Your task to perform on an android device: Search for the best rated soccer ball on AliExpress Image 0: 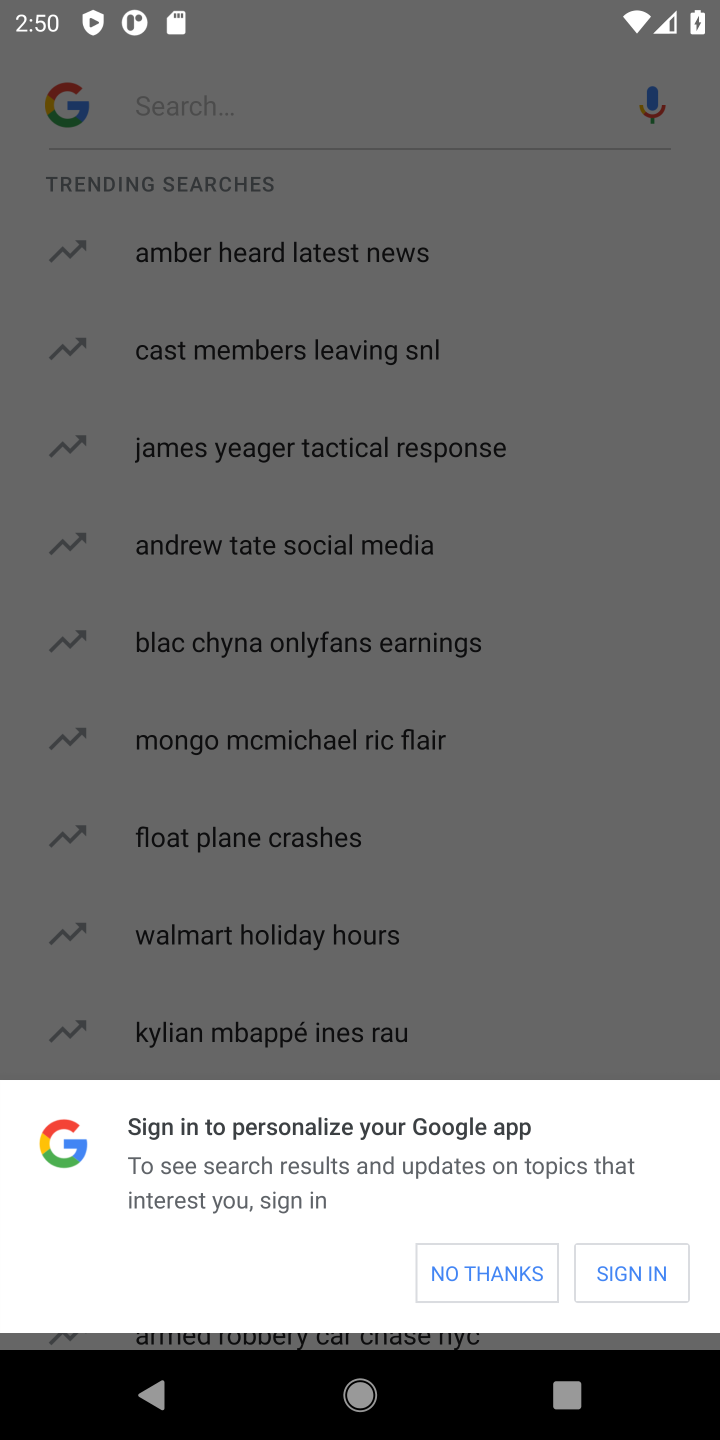
Step 0: click (464, 1282)
Your task to perform on an android device: Search for the best rated soccer ball on AliExpress Image 1: 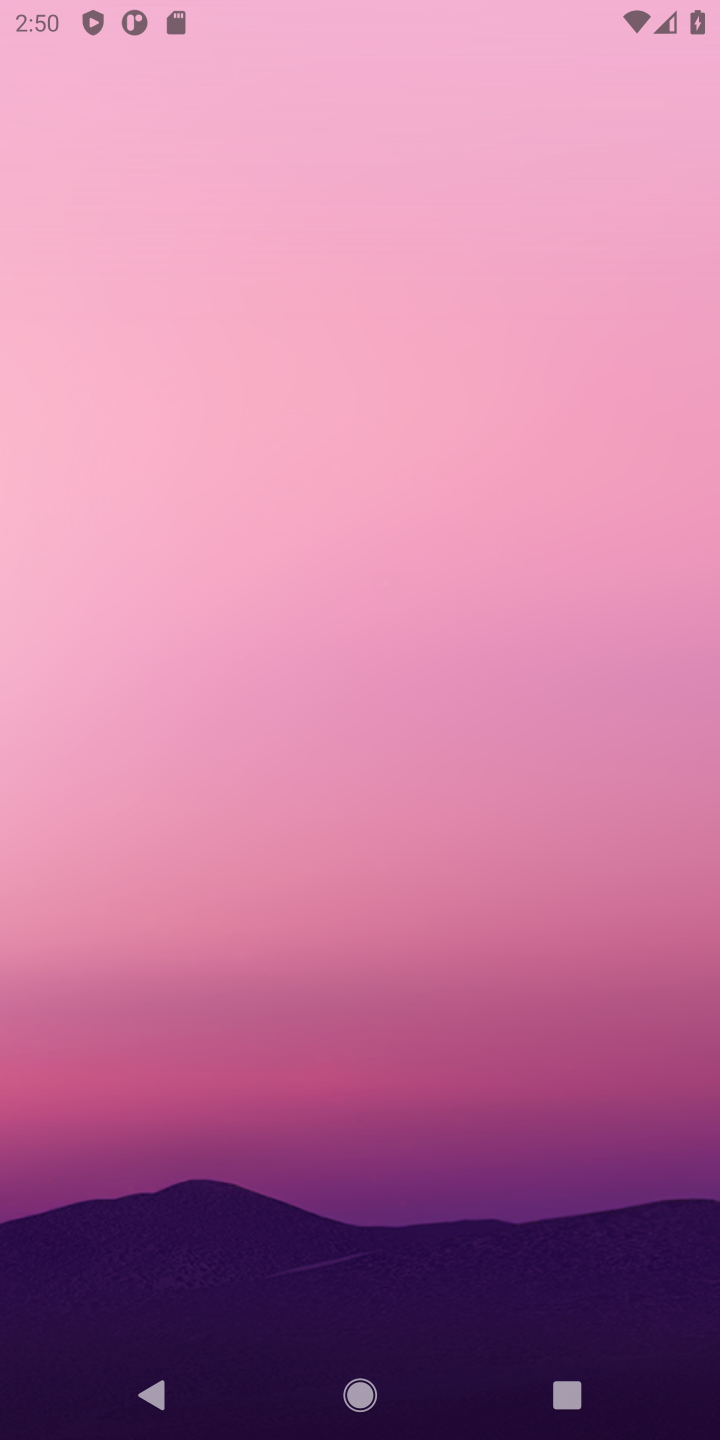
Step 1: press home button
Your task to perform on an android device: Search for the best rated soccer ball on AliExpress Image 2: 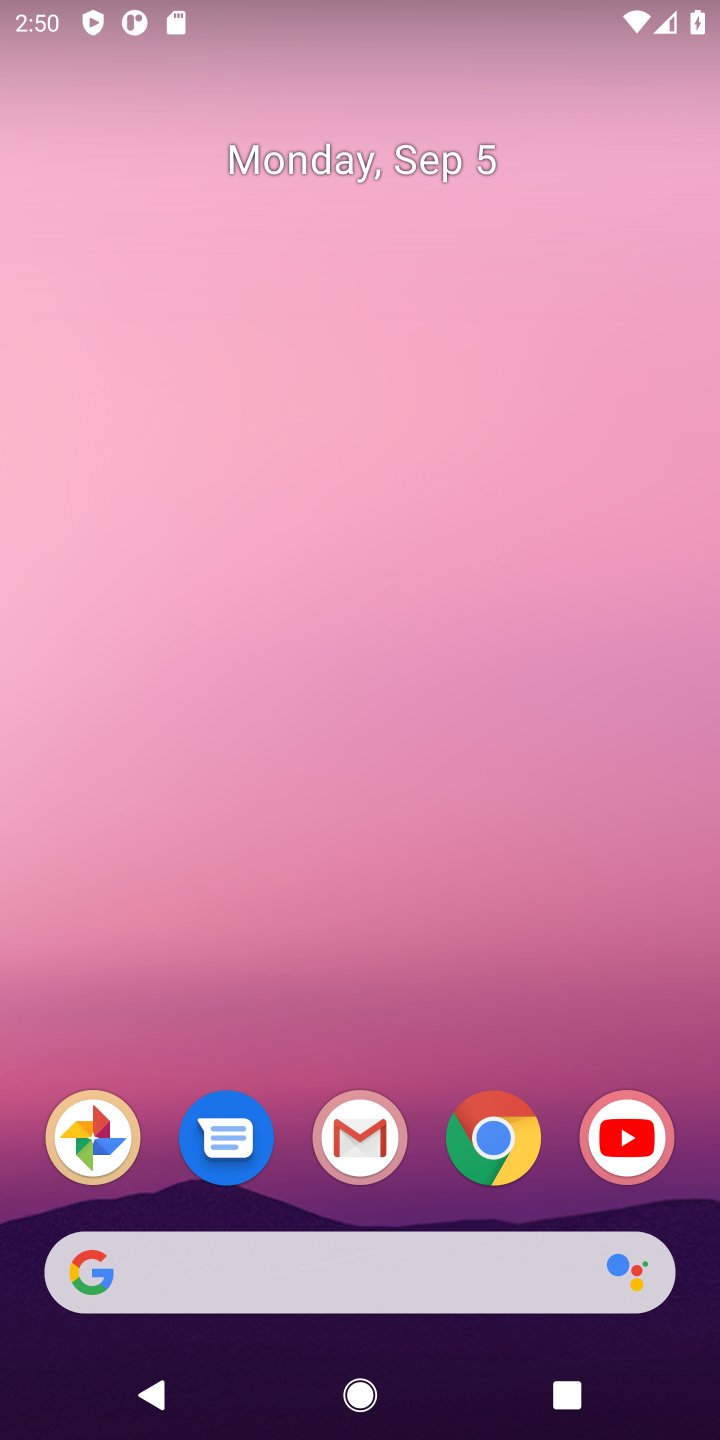
Step 2: click (500, 1147)
Your task to perform on an android device: Search for the best rated soccer ball on AliExpress Image 3: 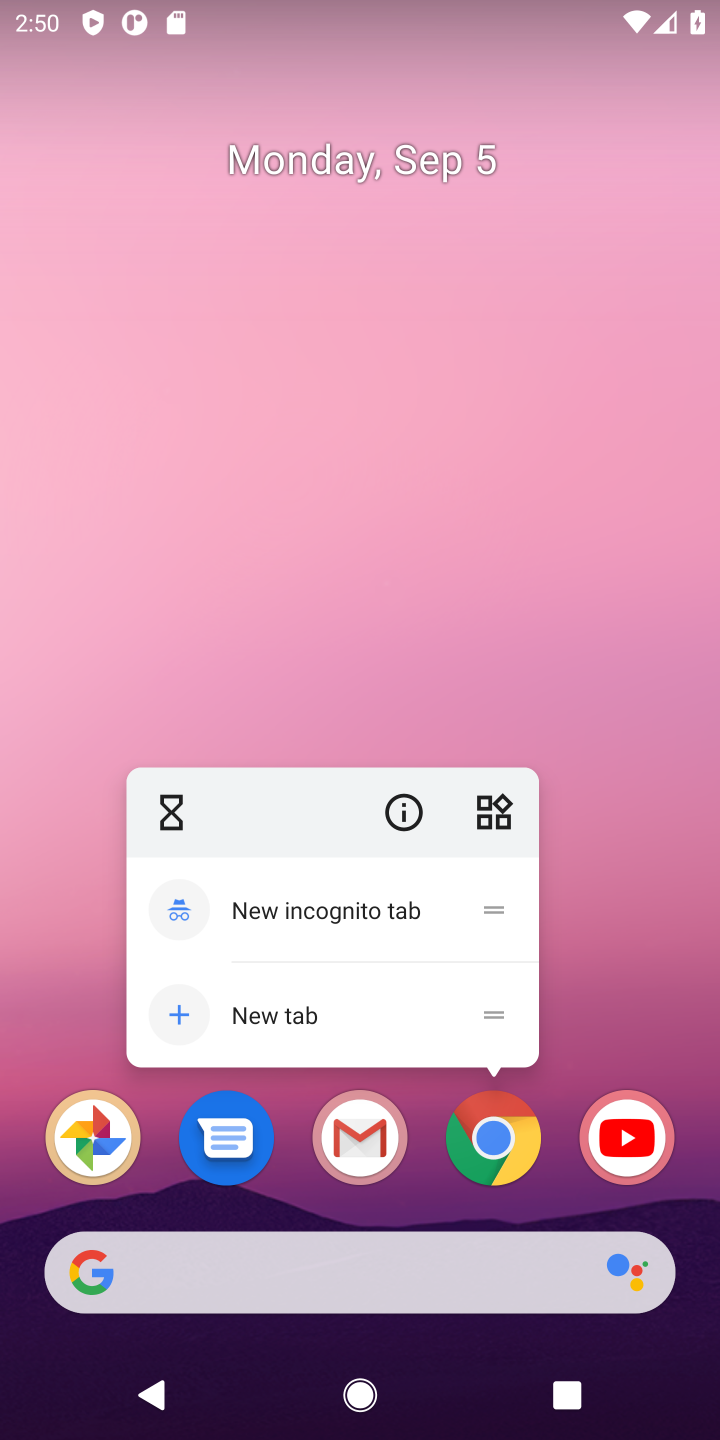
Step 3: click (515, 1141)
Your task to perform on an android device: Search for the best rated soccer ball on AliExpress Image 4: 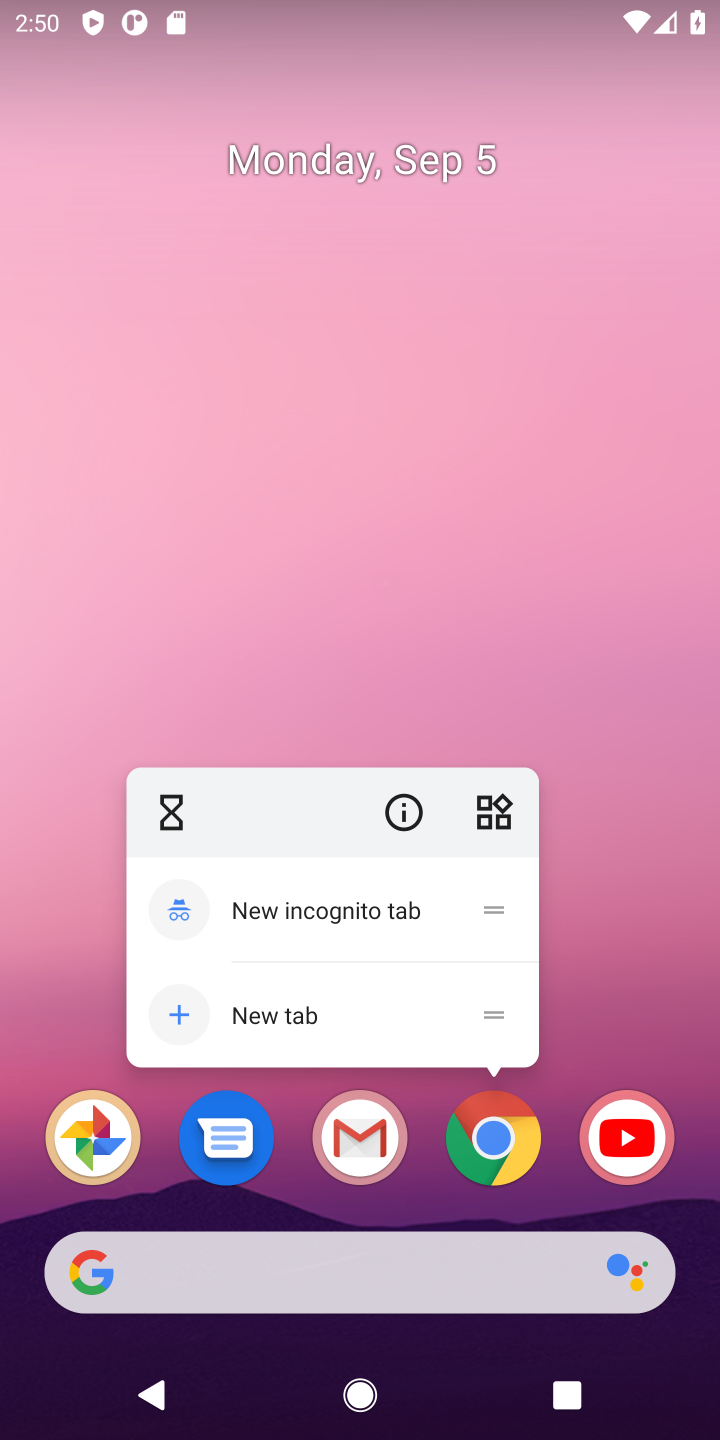
Step 4: click (243, 999)
Your task to perform on an android device: Search for the best rated soccer ball on AliExpress Image 5: 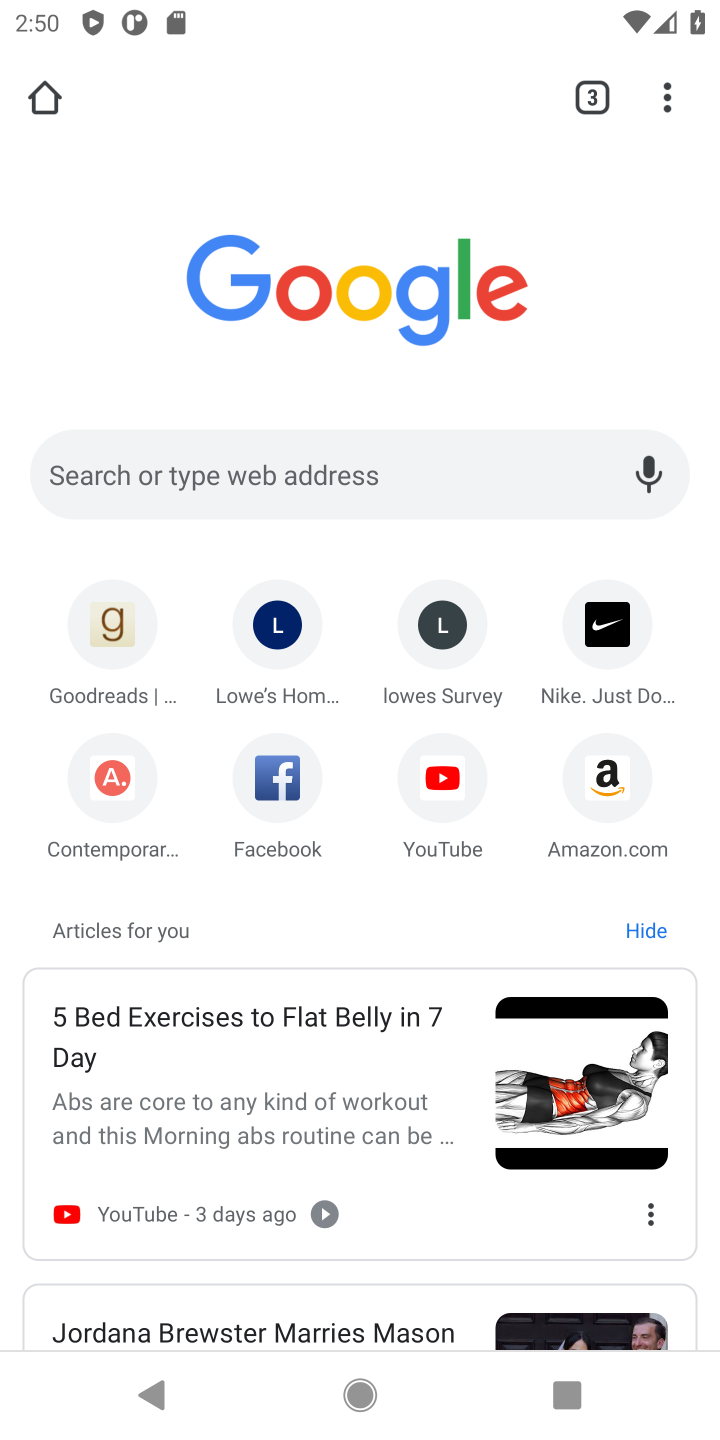
Step 5: click (337, 475)
Your task to perform on an android device: Search for the best rated soccer ball on AliExpress Image 6: 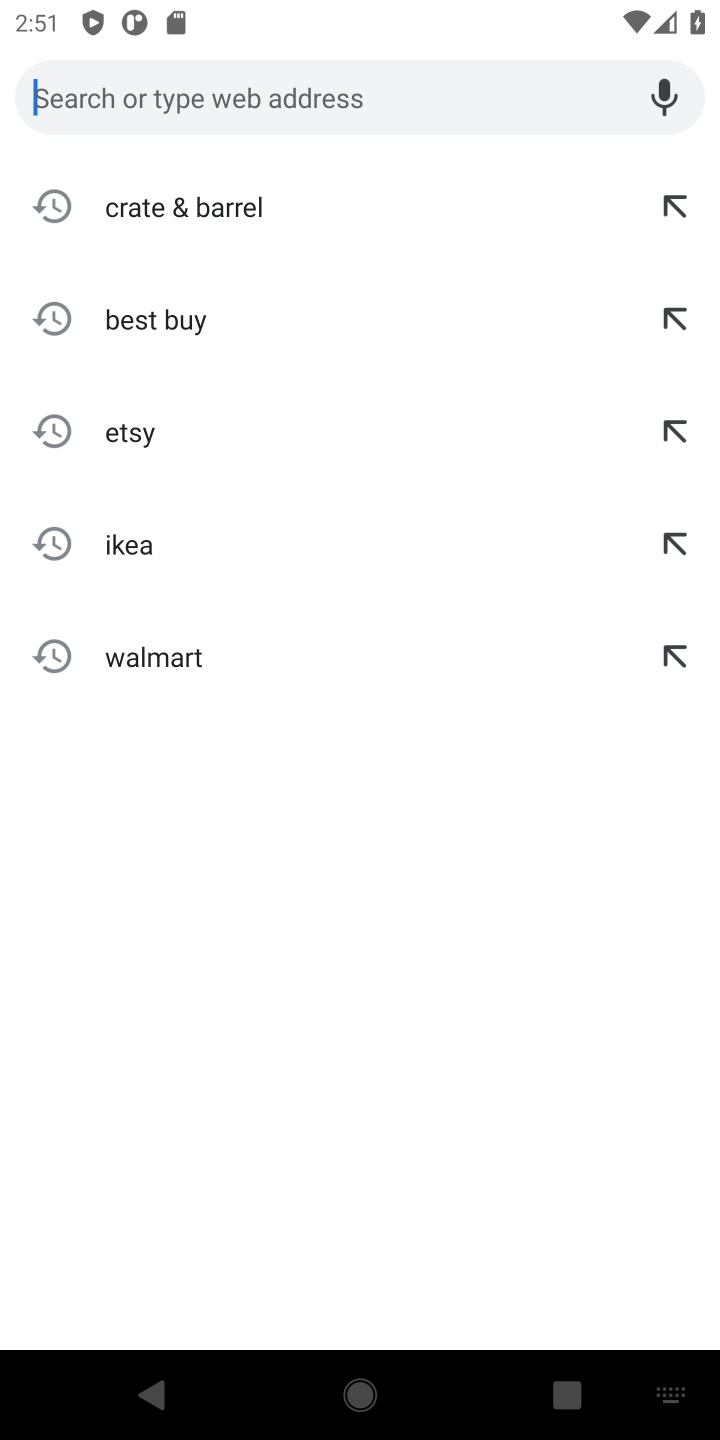
Step 6: type "ali express"
Your task to perform on an android device: Search for the best rated soccer ball on AliExpress Image 7: 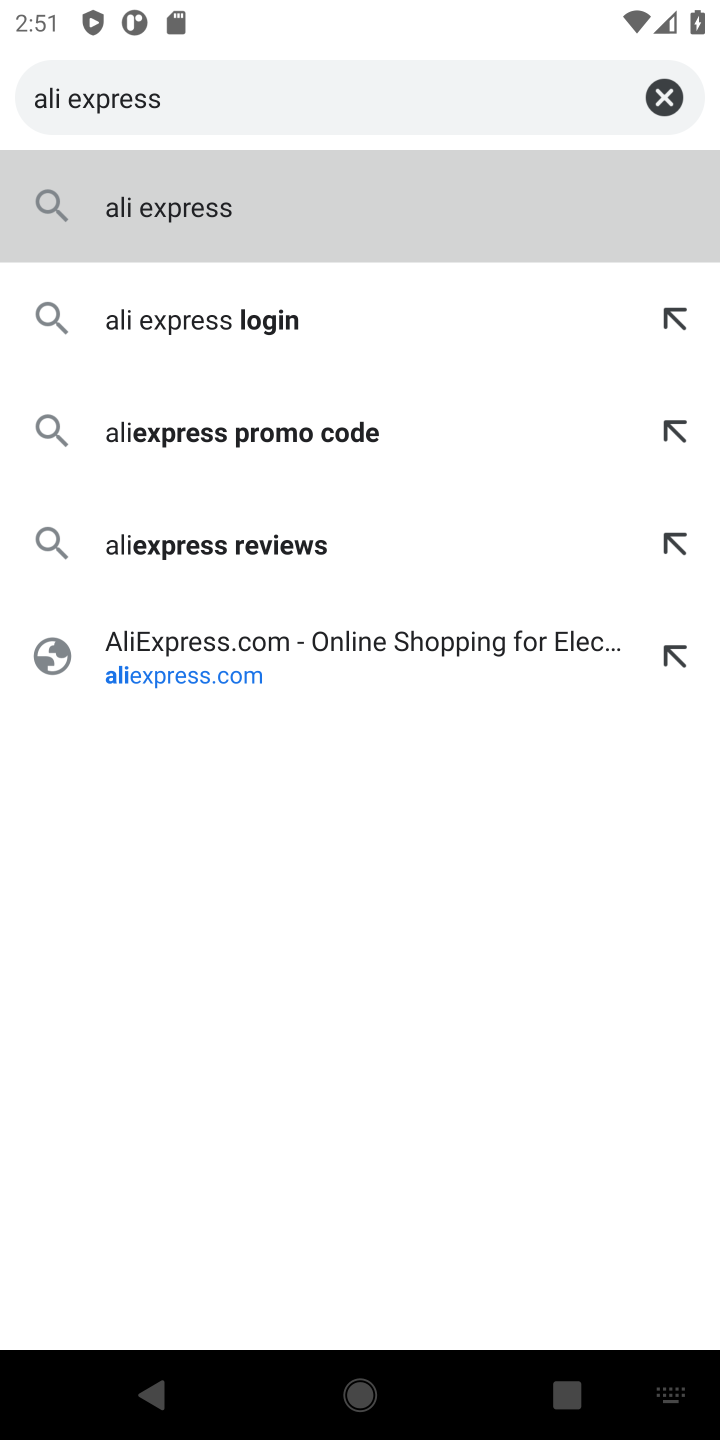
Step 7: click (162, 667)
Your task to perform on an android device: Search for the best rated soccer ball on AliExpress Image 8: 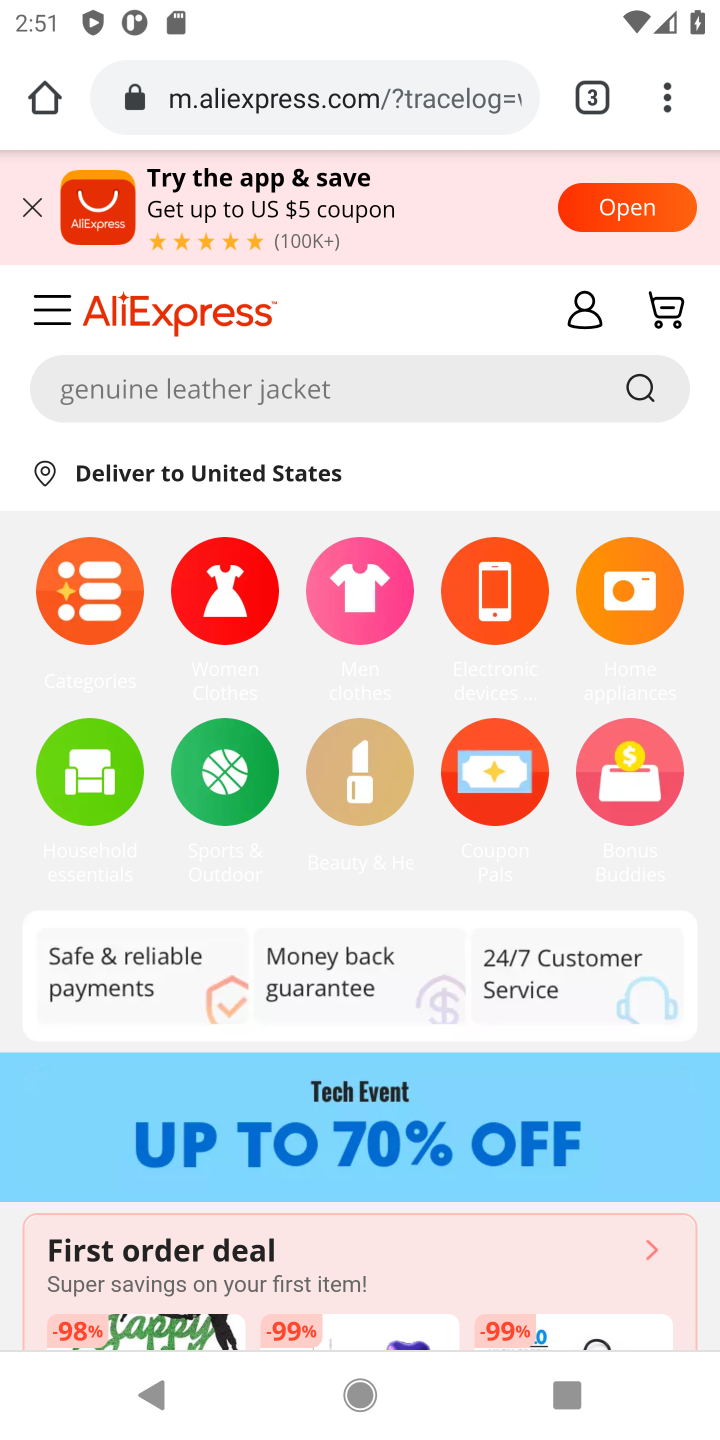
Step 8: click (271, 409)
Your task to perform on an android device: Search for the best rated soccer ball on AliExpress Image 9: 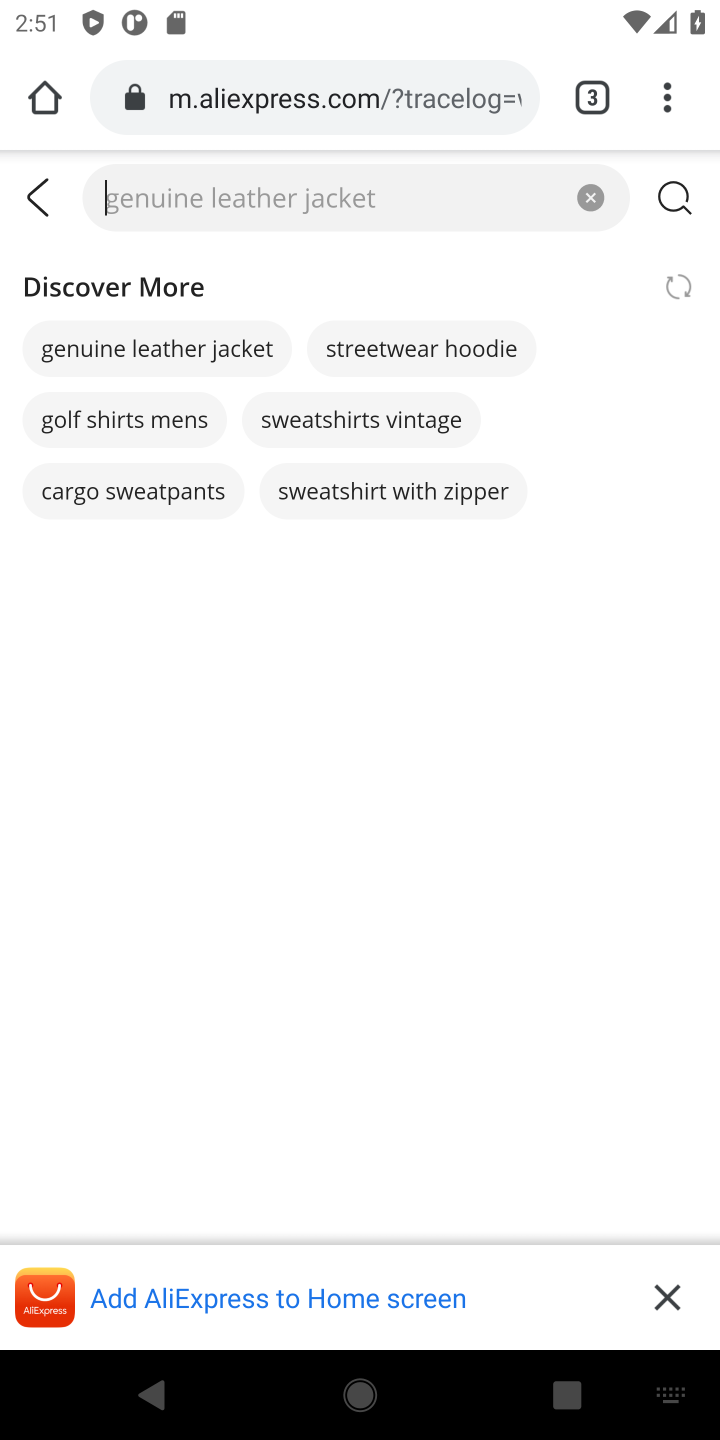
Step 9: type "soccer ball"
Your task to perform on an android device: Search for the best rated soccer ball on AliExpress Image 10: 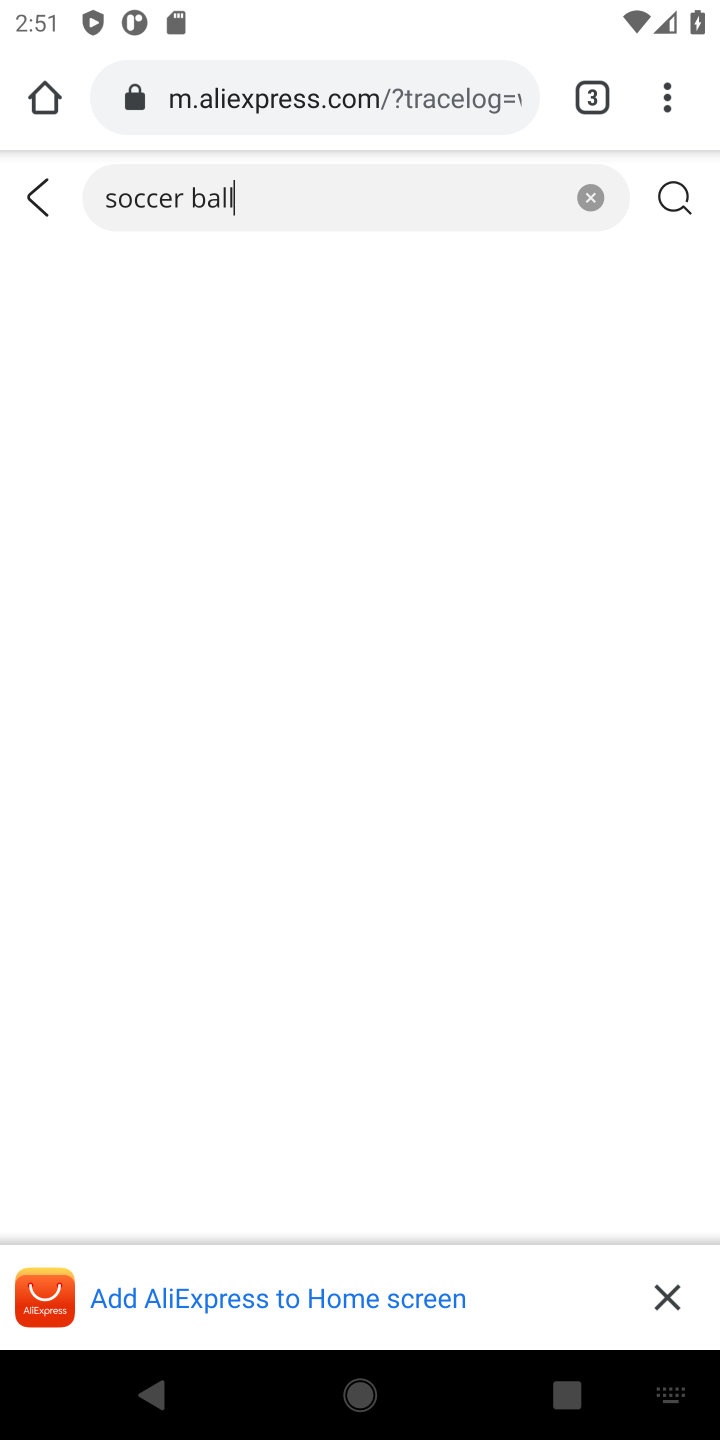
Step 10: type ""
Your task to perform on an android device: Search for the best rated soccer ball on AliExpress Image 11: 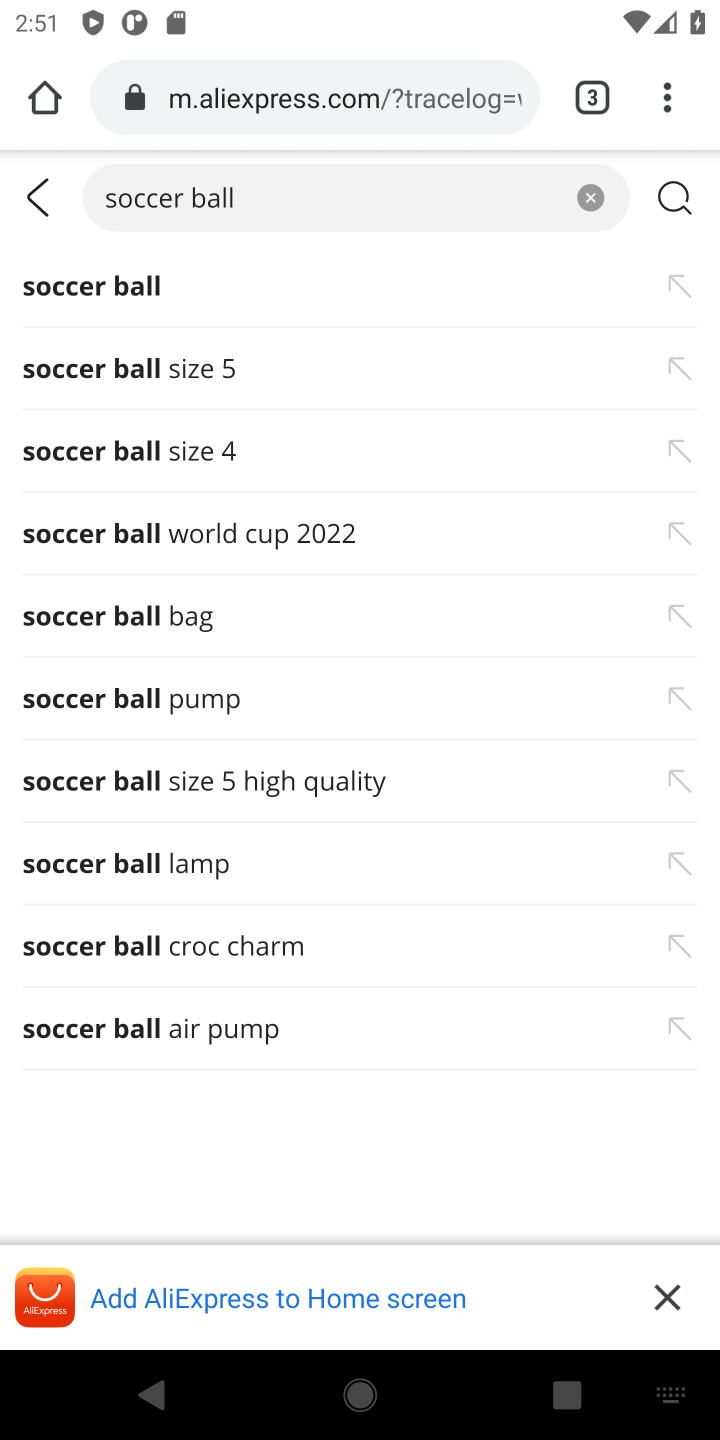
Step 11: click (132, 287)
Your task to perform on an android device: Search for the best rated soccer ball on AliExpress Image 12: 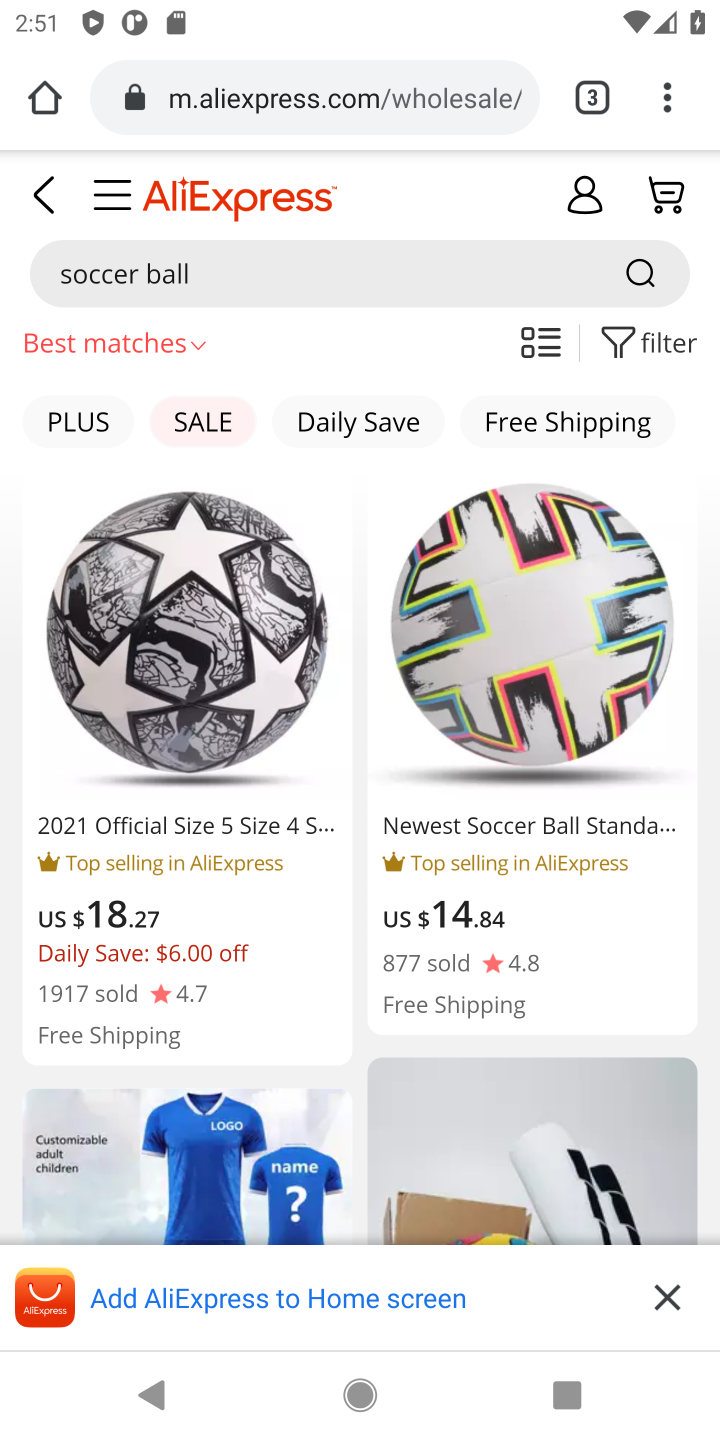
Step 12: click (690, 331)
Your task to perform on an android device: Search for the best rated soccer ball on AliExpress Image 13: 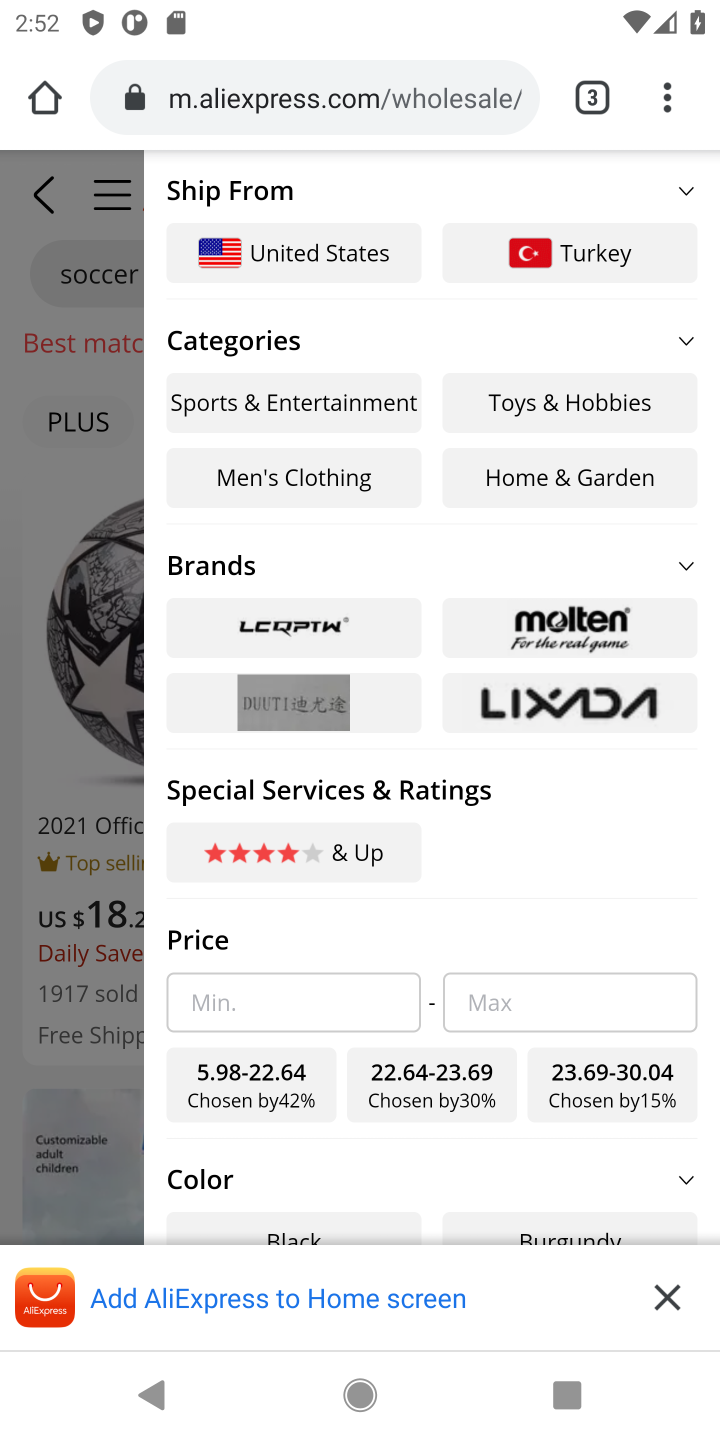
Step 13: click (660, 1299)
Your task to perform on an android device: Search for the best rated soccer ball on AliExpress Image 14: 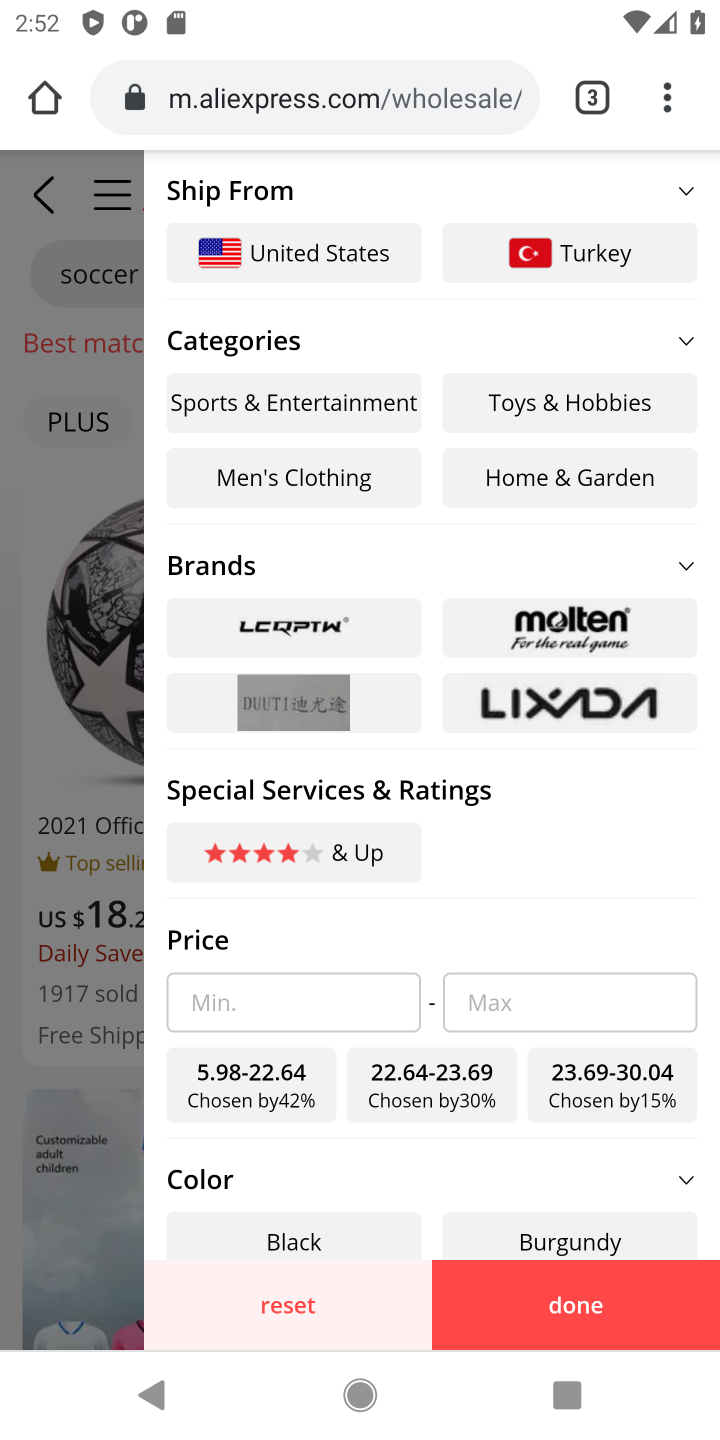
Step 14: click (356, 259)
Your task to perform on an android device: Search for the best rated soccer ball on AliExpress Image 15: 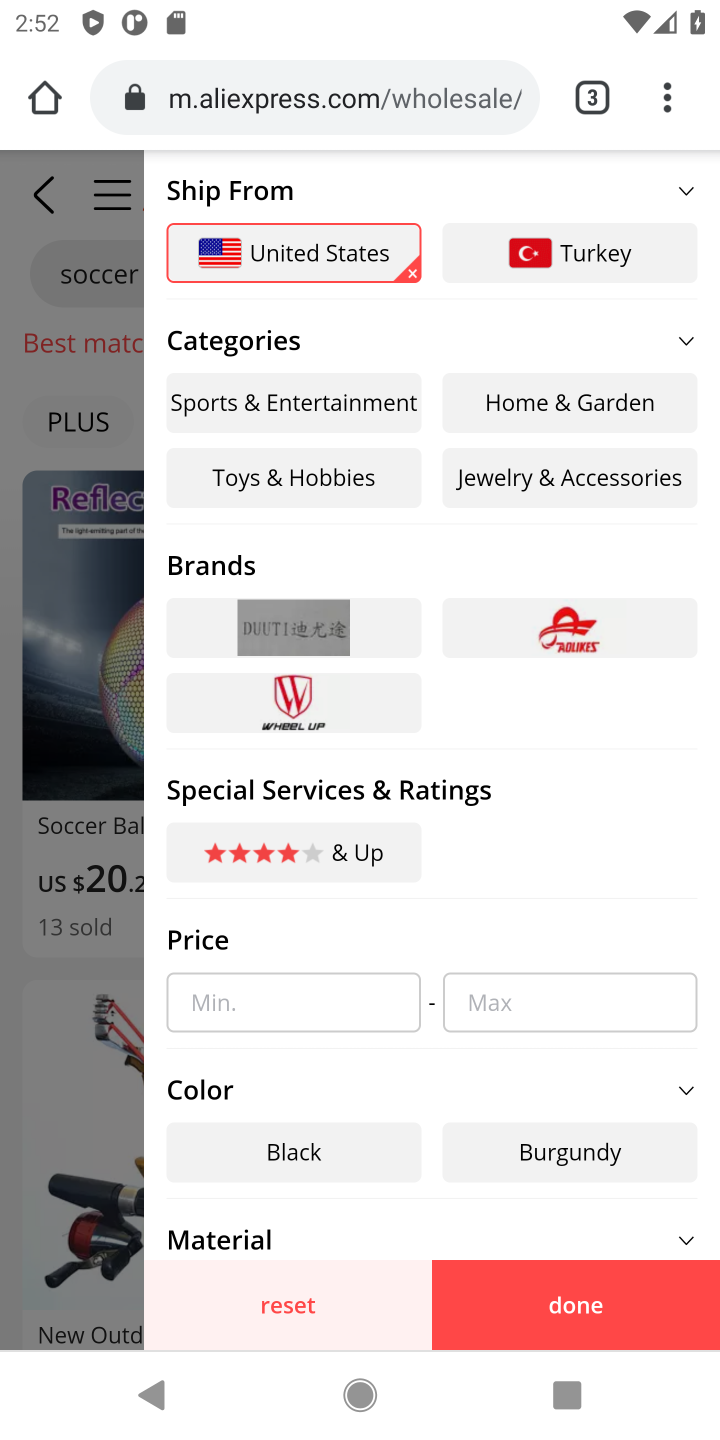
Step 15: click (571, 1316)
Your task to perform on an android device: Search for the best rated soccer ball on AliExpress Image 16: 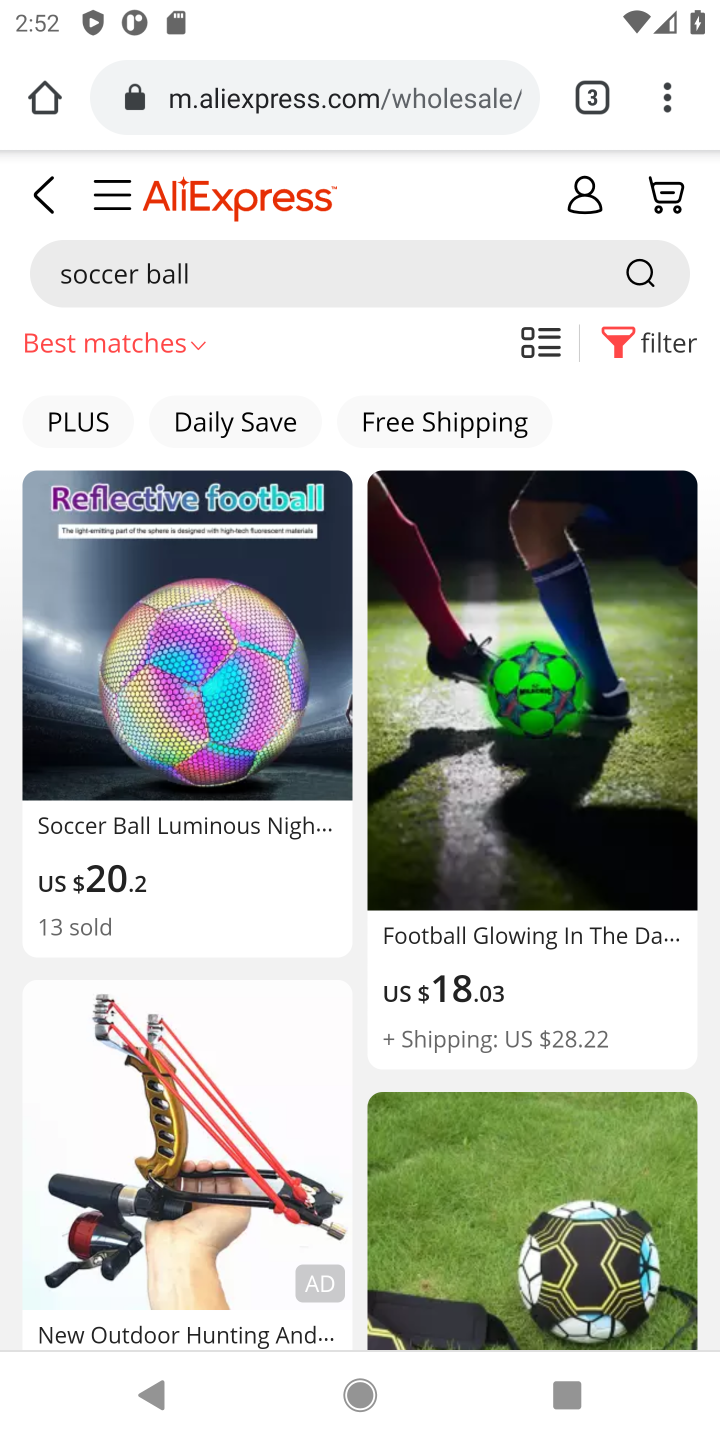
Step 16: click (233, 268)
Your task to perform on an android device: Search for the best rated soccer ball on AliExpress Image 17: 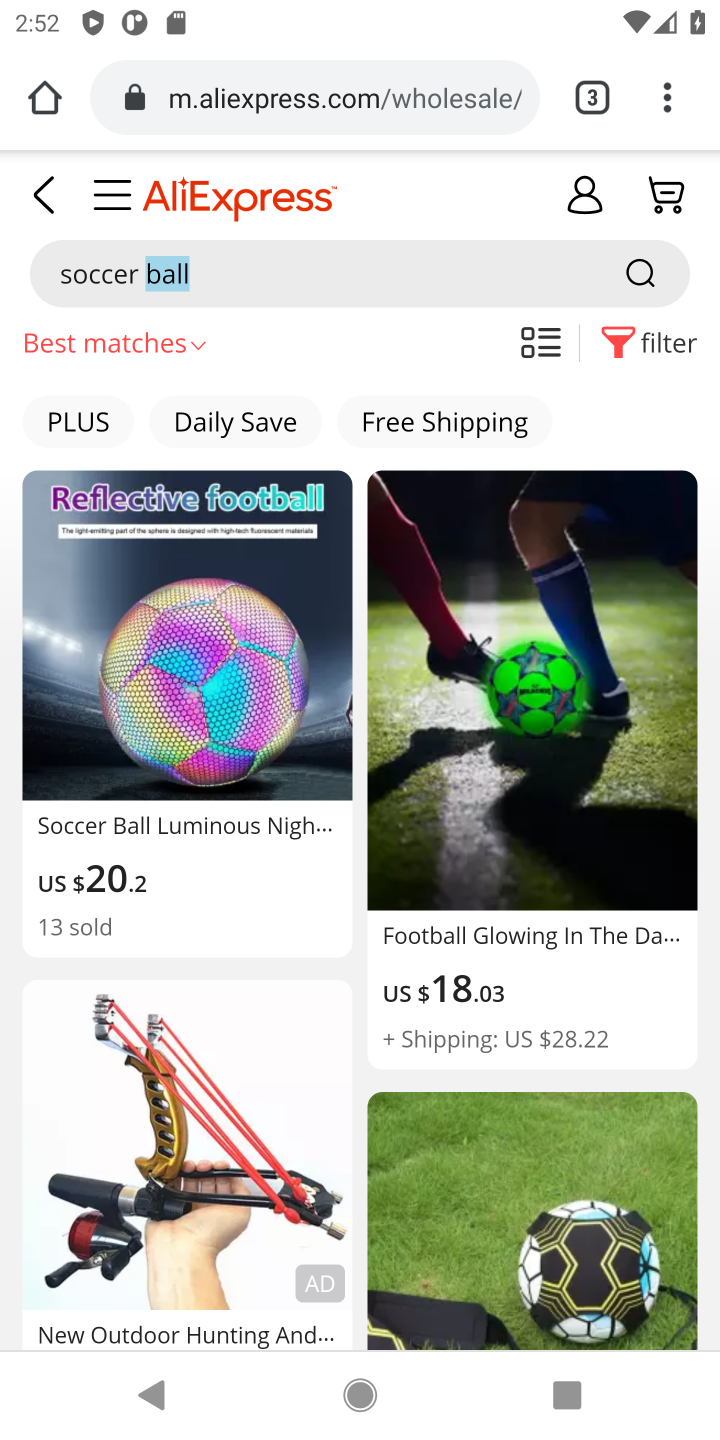
Step 17: drag from (633, 280) to (318, 555)
Your task to perform on an android device: Search for the best rated soccer ball on AliExpress Image 18: 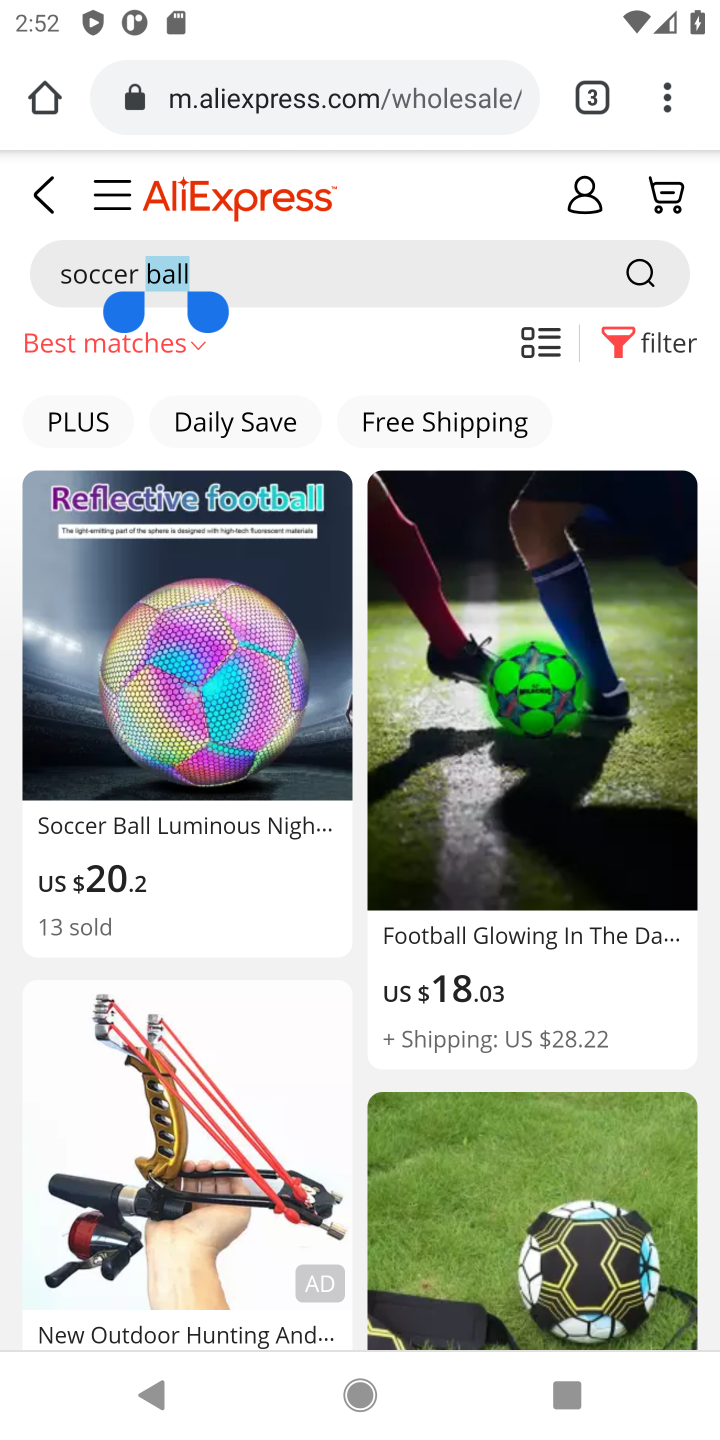
Step 18: drag from (519, 1203) to (580, 746)
Your task to perform on an android device: Search for the best rated soccer ball on AliExpress Image 19: 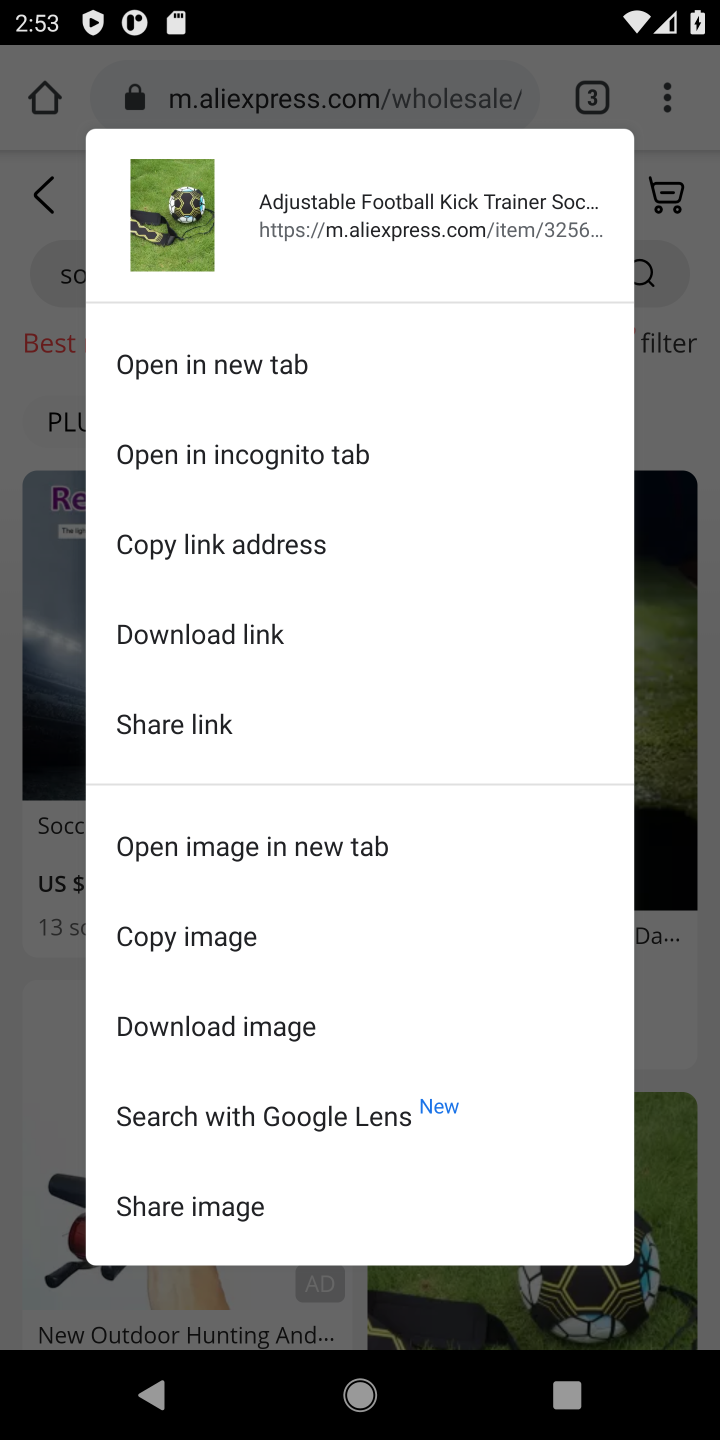
Step 19: drag from (706, 943) to (706, 692)
Your task to perform on an android device: Search for the best rated soccer ball on AliExpress Image 20: 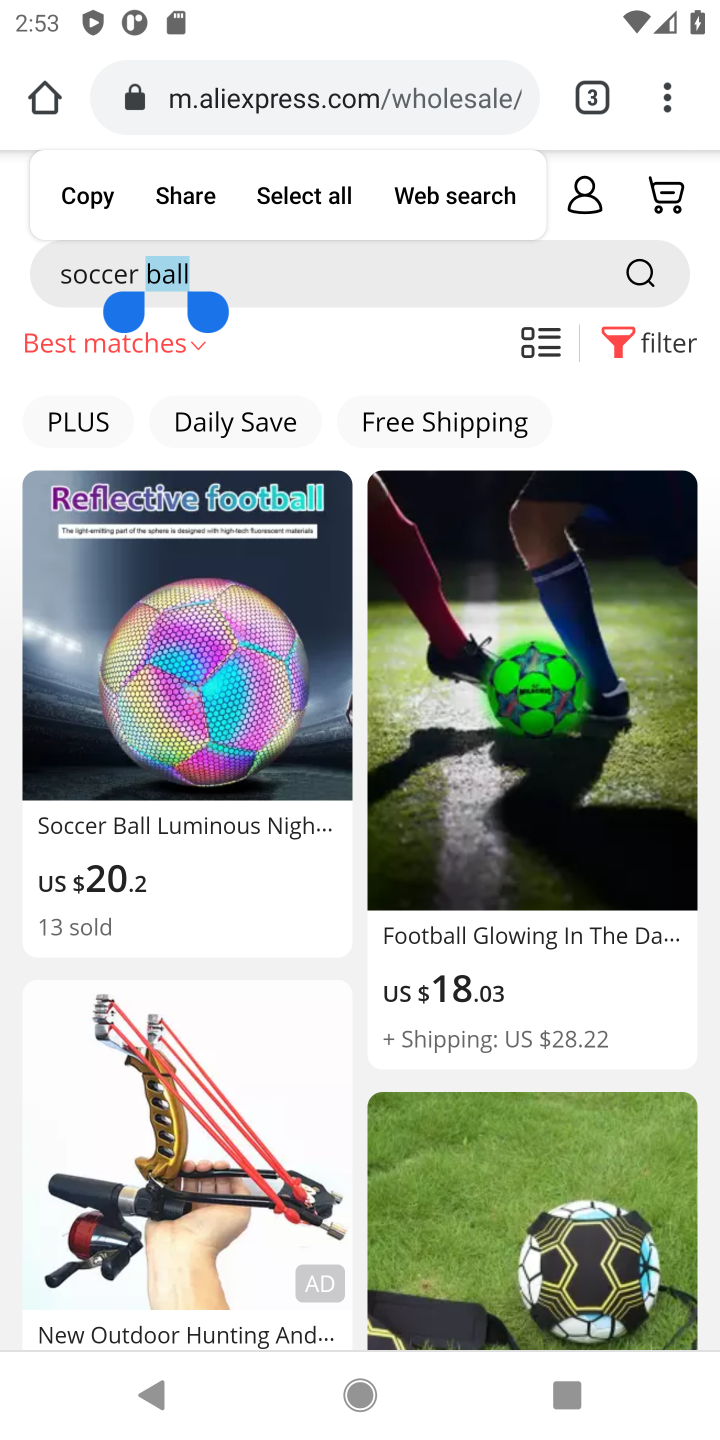
Step 20: drag from (520, 1036) to (670, 346)
Your task to perform on an android device: Search for the best rated soccer ball on AliExpress Image 21: 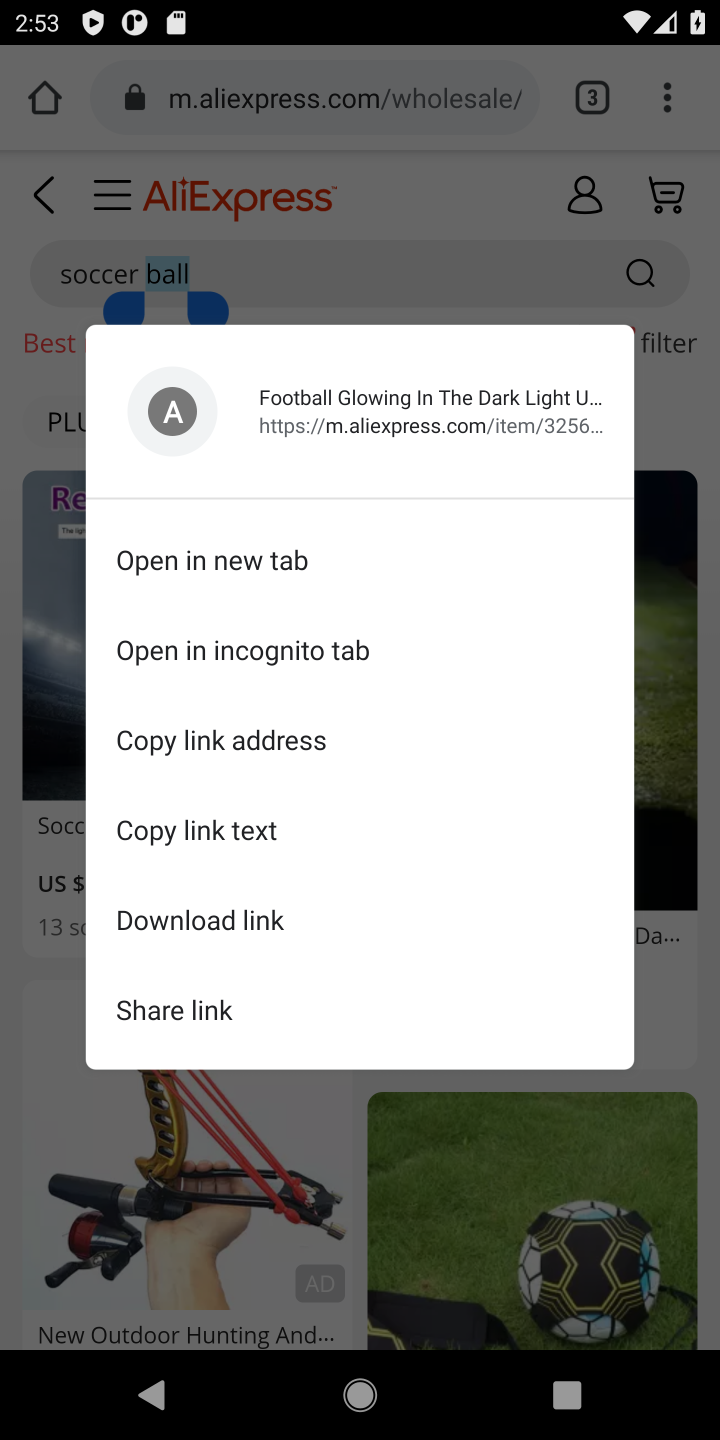
Step 21: click (716, 434)
Your task to perform on an android device: Search for the best rated soccer ball on AliExpress Image 22: 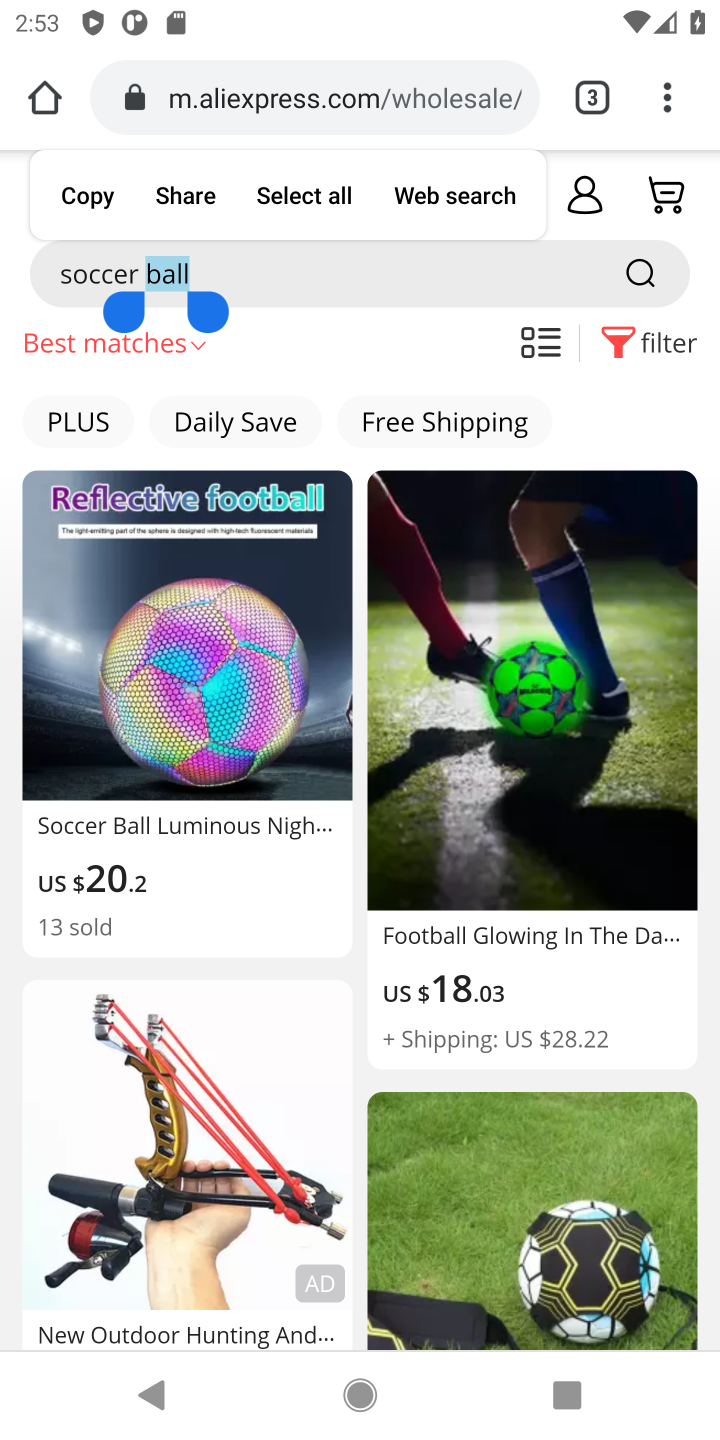
Step 22: click (674, 348)
Your task to perform on an android device: Search for the best rated soccer ball on AliExpress Image 23: 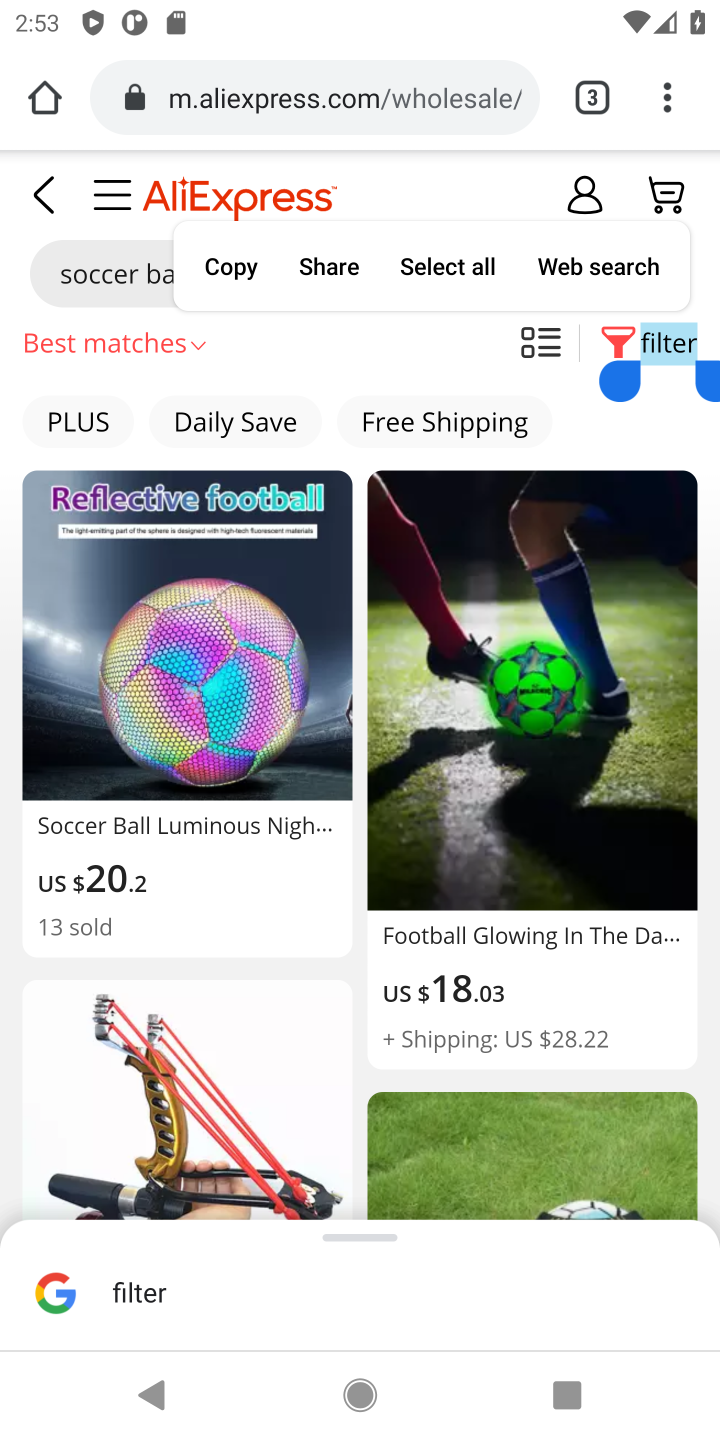
Step 23: drag from (368, 991) to (281, 515)
Your task to perform on an android device: Search for the best rated soccer ball on AliExpress Image 24: 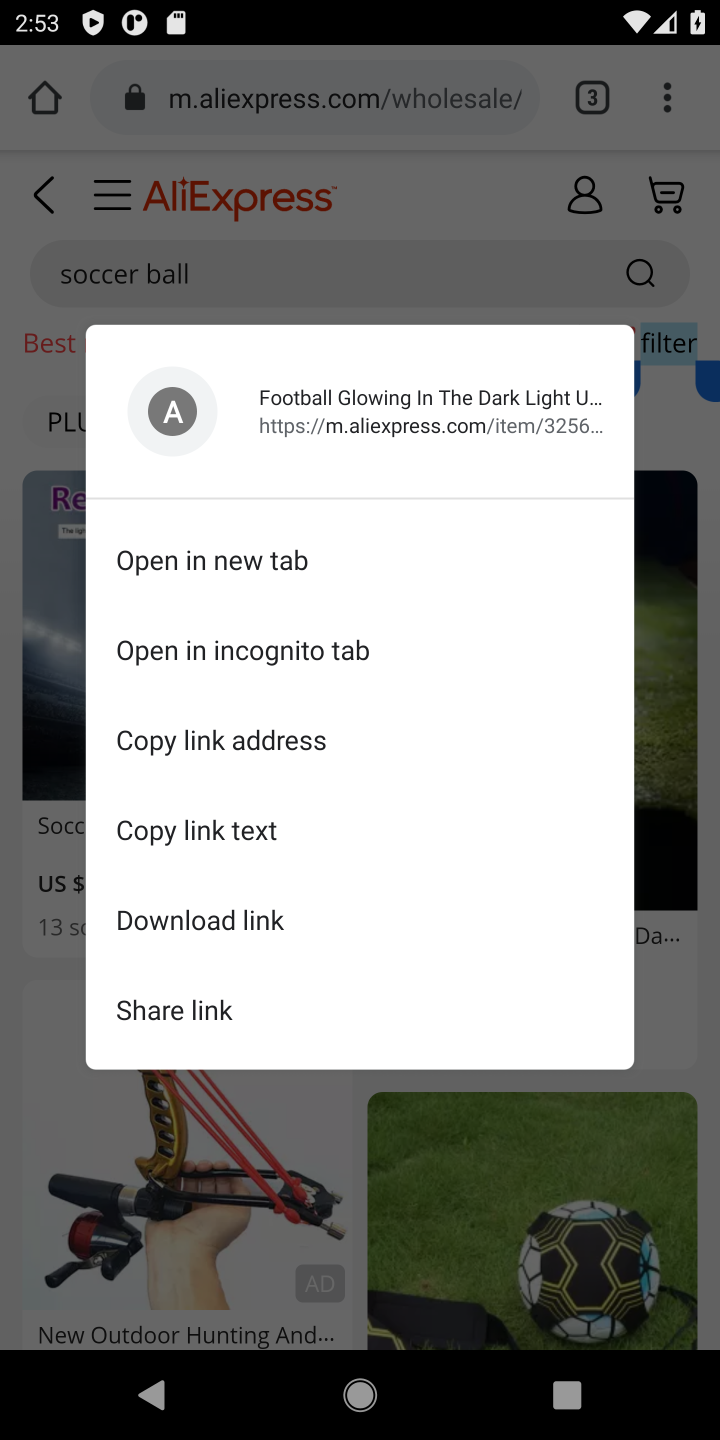
Step 24: click (709, 651)
Your task to perform on an android device: Search for the best rated soccer ball on AliExpress Image 25: 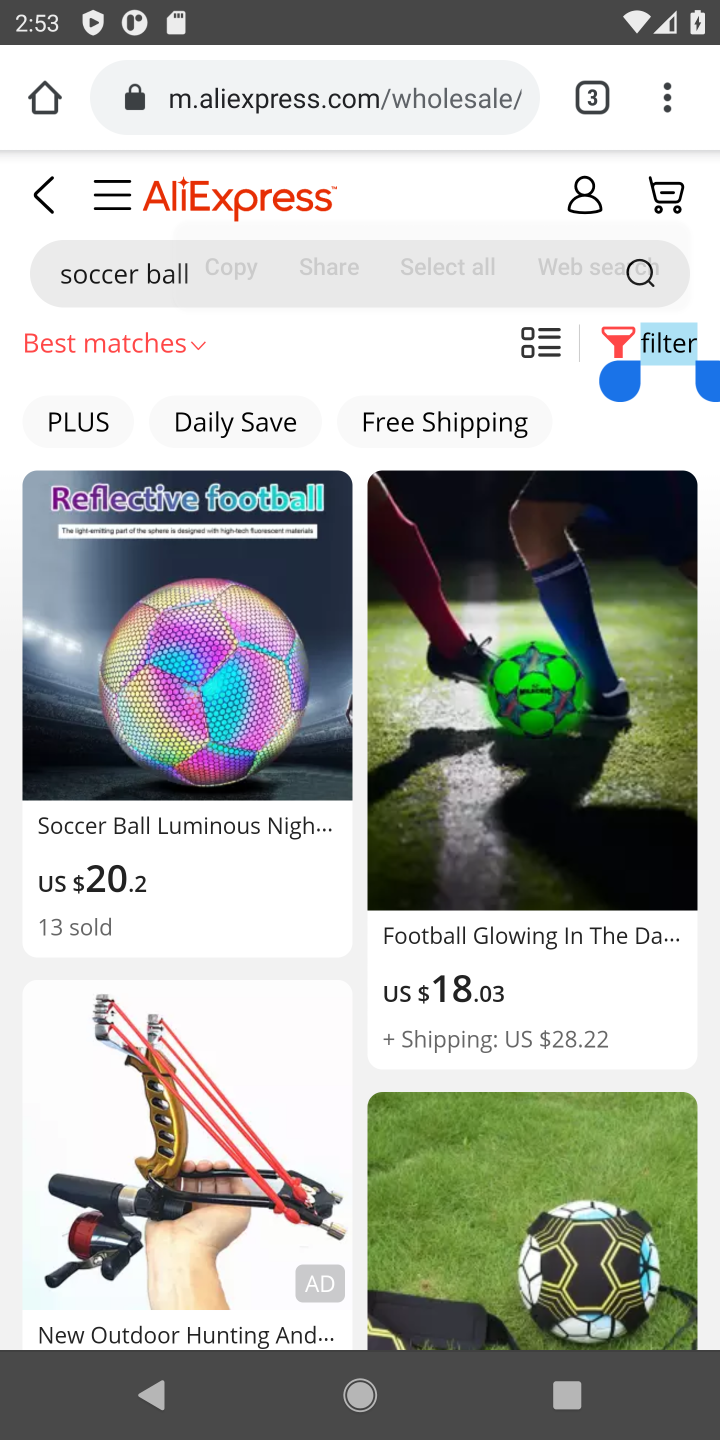
Step 25: click (709, 651)
Your task to perform on an android device: Search for the best rated soccer ball on AliExpress Image 26: 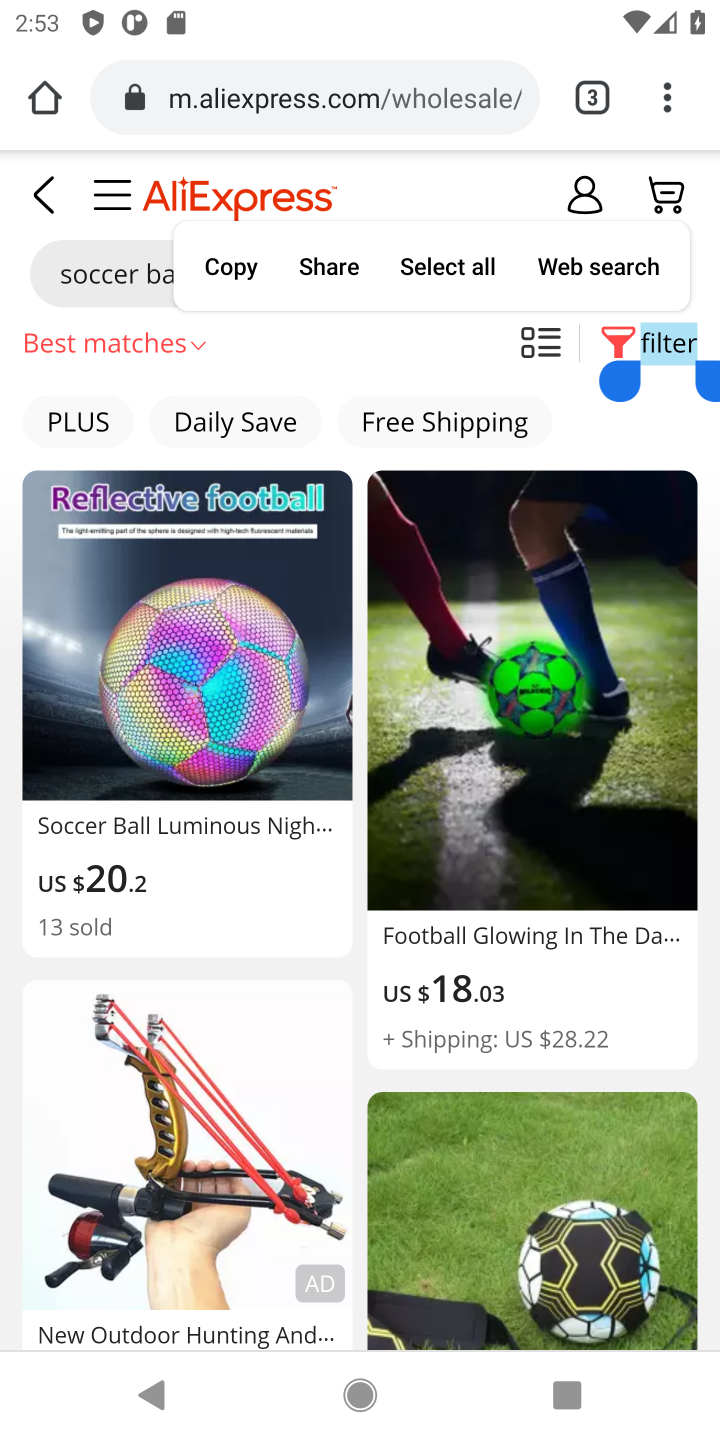
Step 26: click (160, 714)
Your task to perform on an android device: Search for the best rated soccer ball on AliExpress Image 27: 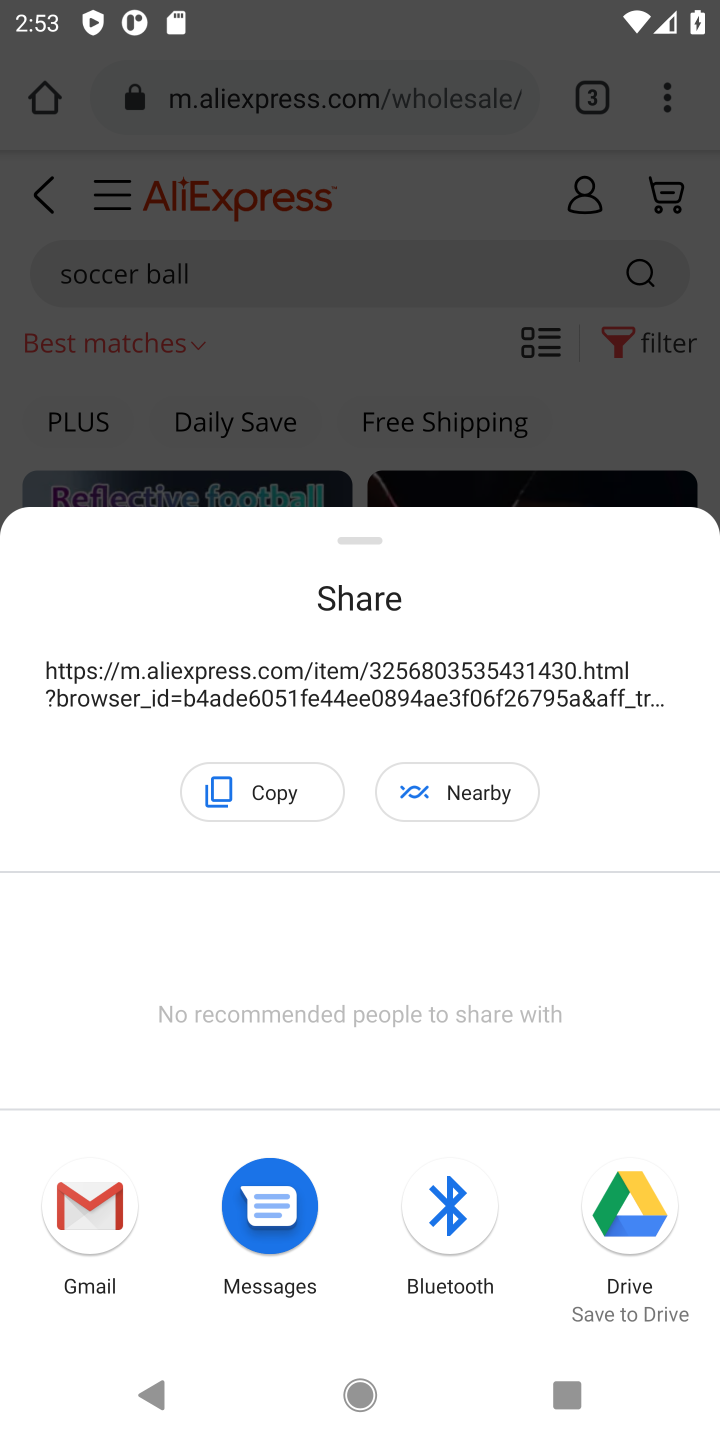
Step 27: task complete